Your task to perform on an android device: star an email in the gmail app Image 0: 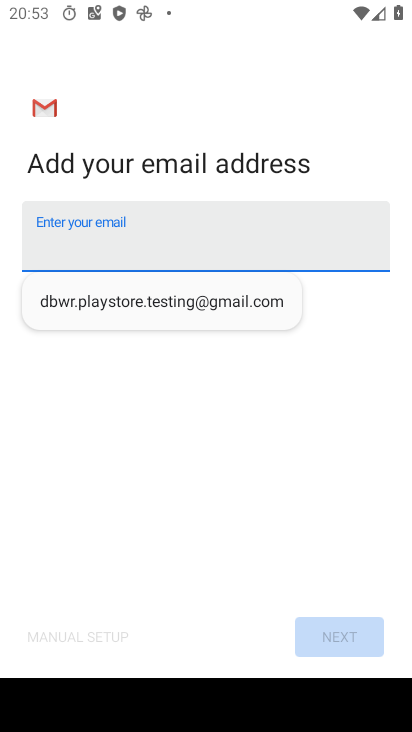
Step 0: press home button
Your task to perform on an android device: star an email in the gmail app Image 1: 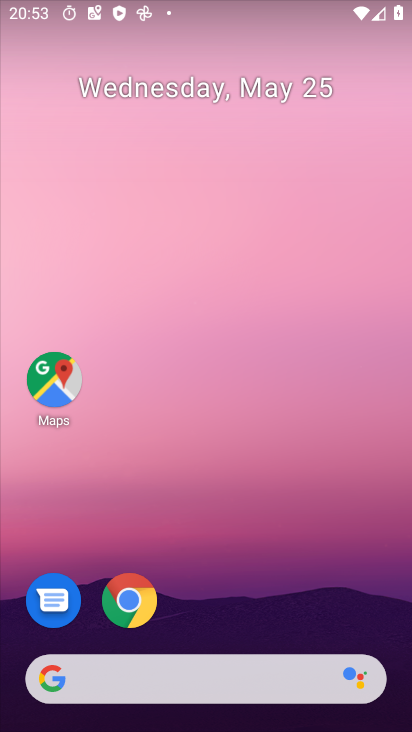
Step 1: drag from (319, 439) to (306, 105)
Your task to perform on an android device: star an email in the gmail app Image 2: 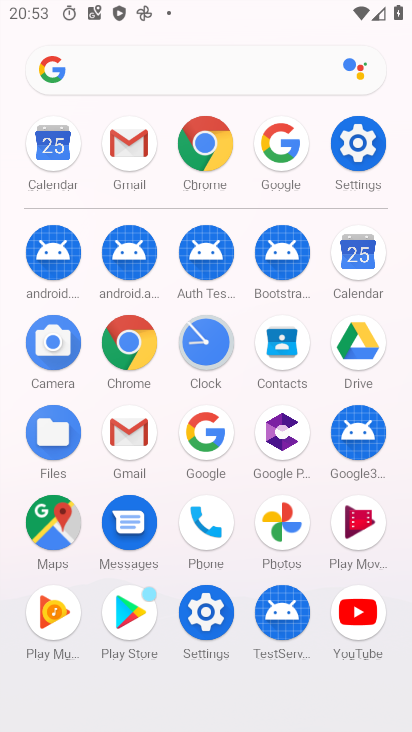
Step 2: click (123, 454)
Your task to perform on an android device: star an email in the gmail app Image 3: 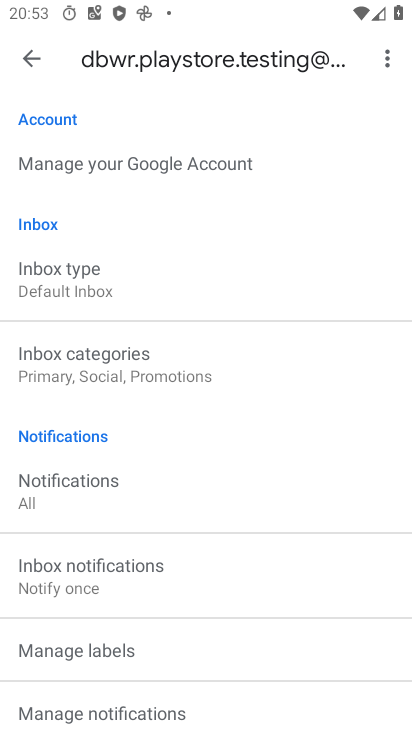
Step 3: click (34, 44)
Your task to perform on an android device: star an email in the gmail app Image 4: 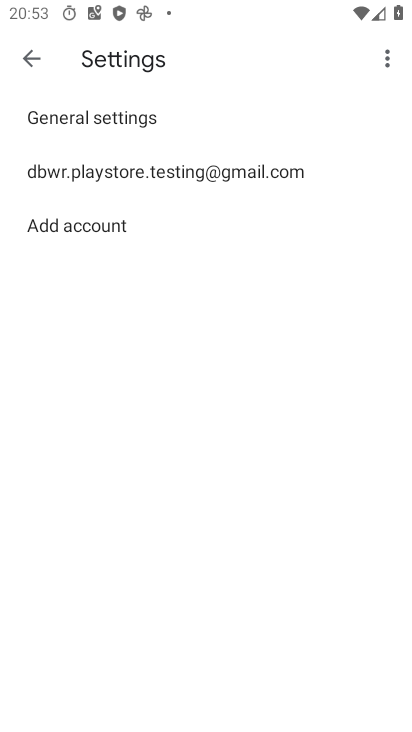
Step 4: click (36, 56)
Your task to perform on an android device: star an email in the gmail app Image 5: 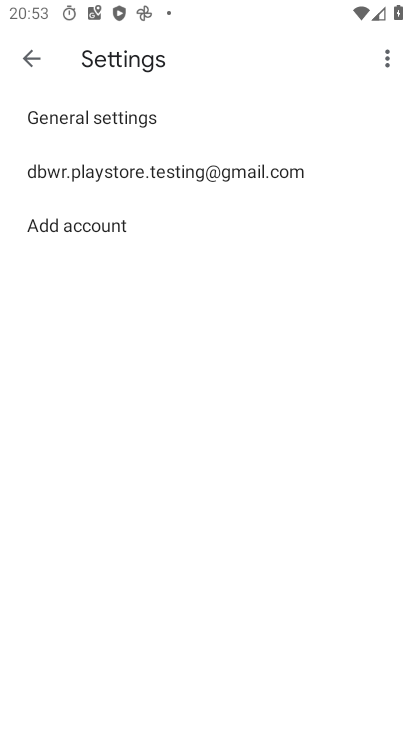
Step 5: click (41, 61)
Your task to perform on an android device: star an email in the gmail app Image 6: 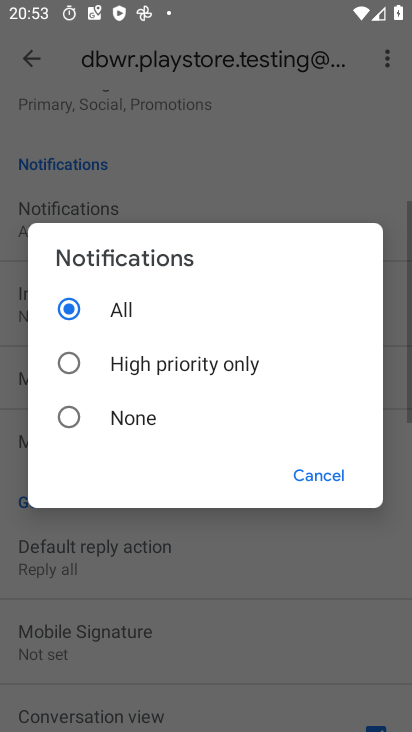
Step 6: click (41, 65)
Your task to perform on an android device: star an email in the gmail app Image 7: 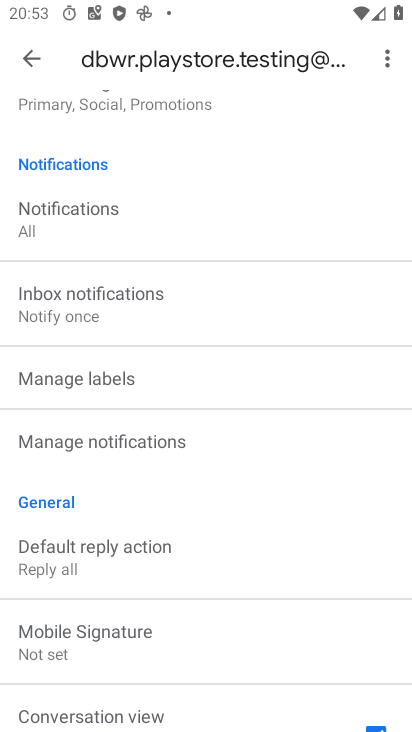
Step 7: click (33, 51)
Your task to perform on an android device: star an email in the gmail app Image 8: 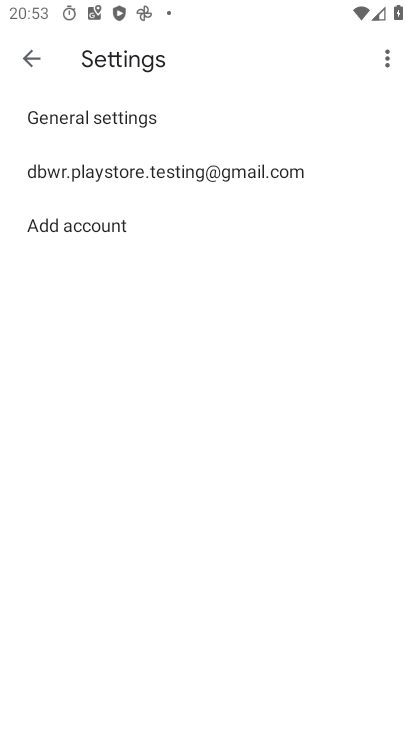
Step 8: click (33, 54)
Your task to perform on an android device: star an email in the gmail app Image 9: 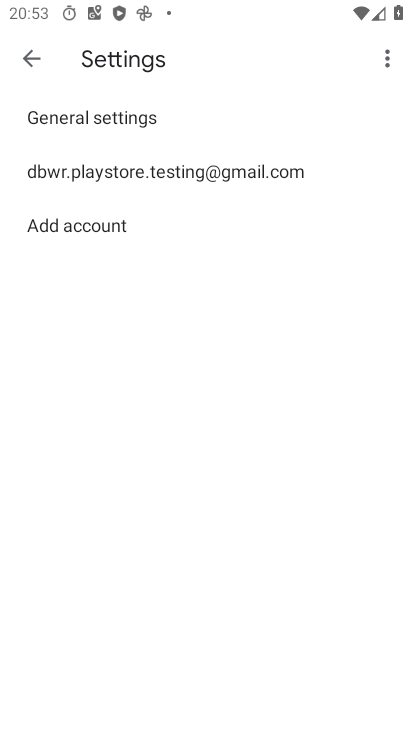
Step 9: click (33, 54)
Your task to perform on an android device: star an email in the gmail app Image 10: 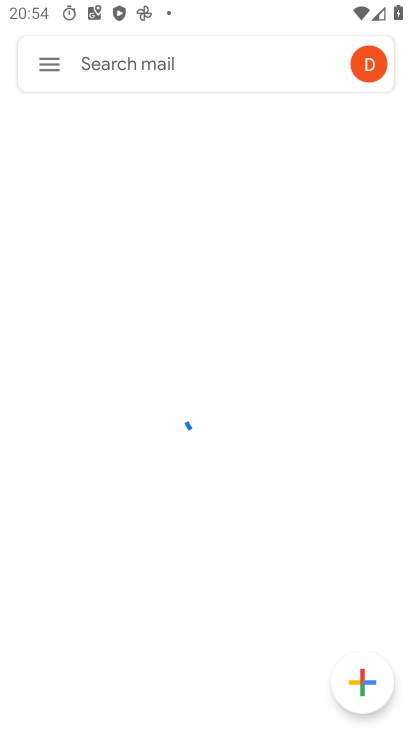
Step 10: click (33, 54)
Your task to perform on an android device: star an email in the gmail app Image 11: 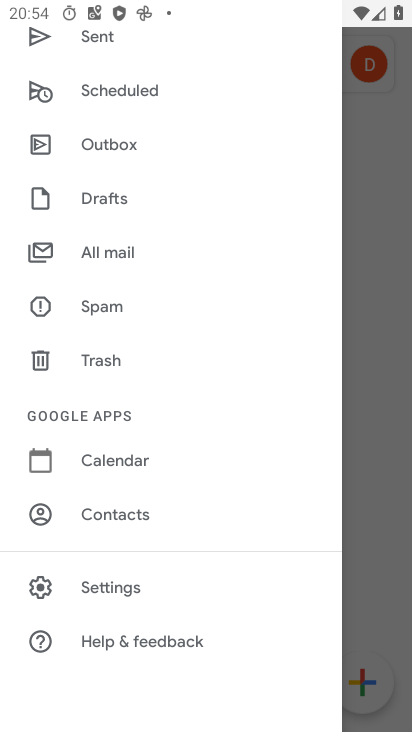
Step 11: drag from (152, 157) to (131, 505)
Your task to perform on an android device: star an email in the gmail app Image 12: 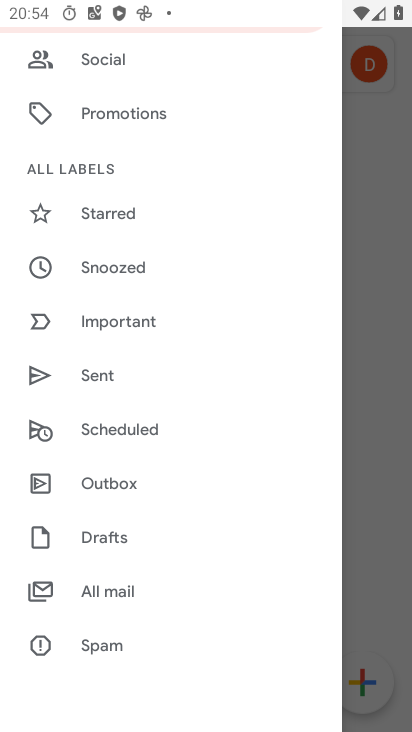
Step 12: click (129, 218)
Your task to perform on an android device: star an email in the gmail app Image 13: 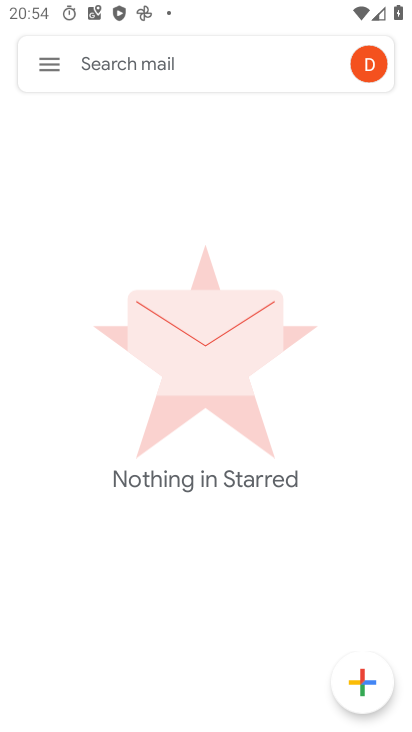
Step 13: task complete